Your task to perform on an android device: Go to sound settings Image 0: 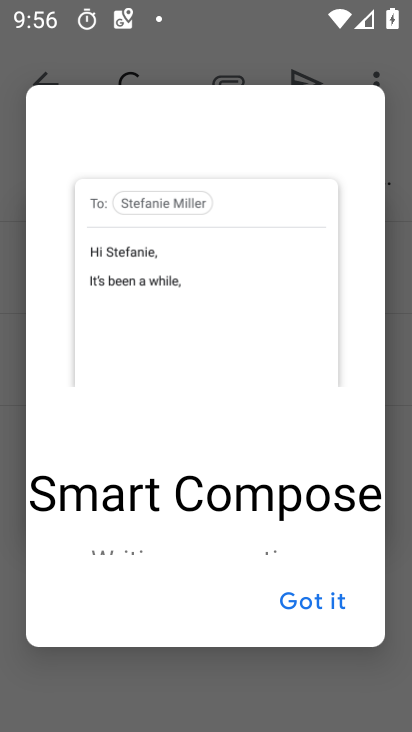
Step 0: press home button
Your task to perform on an android device: Go to sound settings Image 1: 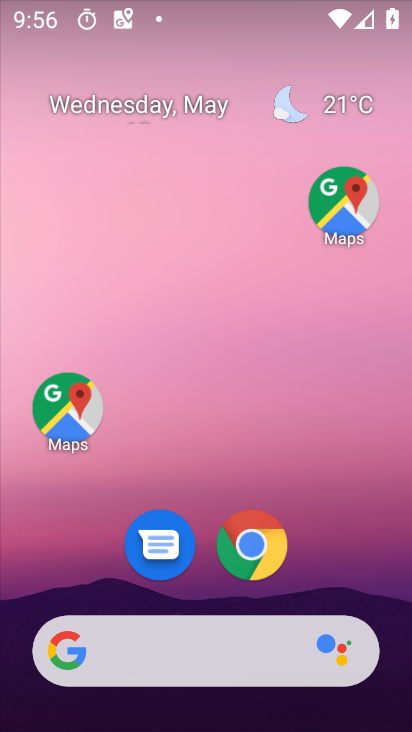
Step 1: drag from (323, 581) to (225, 31)
Your task to perform on an android device: Go to sound settings Image 2: 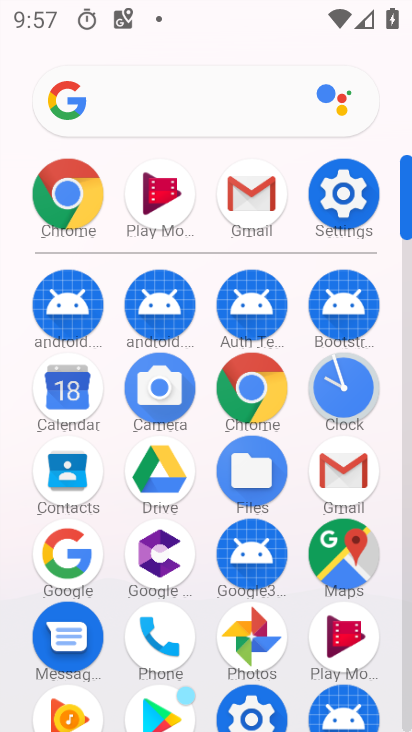
Step 2: click (347, 202)
Your task to perform on an android device: Go to sound settings Image 3: 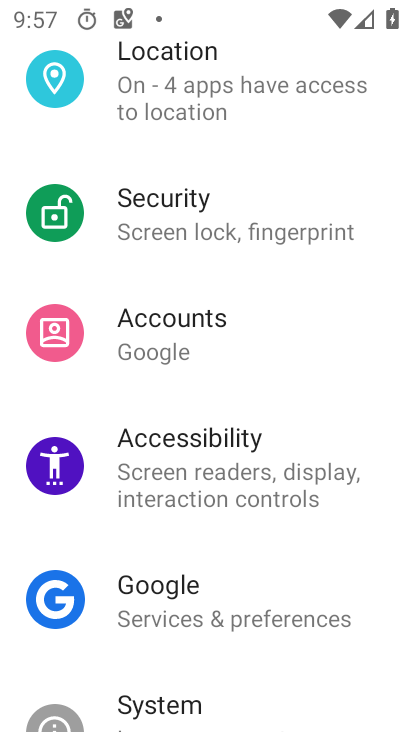
Step 3: drag from (167, 395) to (158, 536)
Your task to perform on an android device: Go to sound settings Image 4: 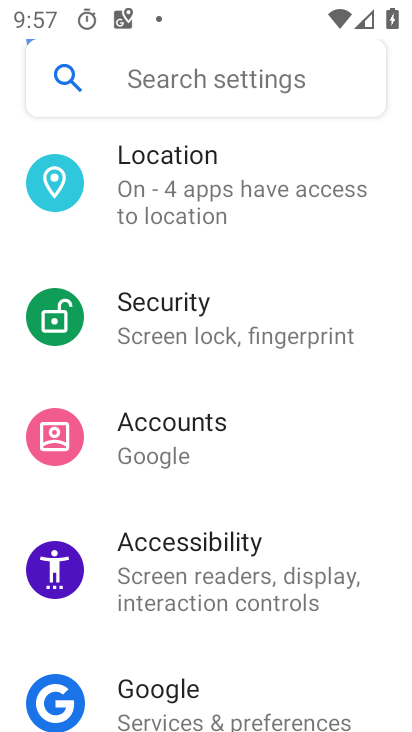
Step 4: drag from (177, 227) to (222, 362)
Your task to perform on an android device: Go to sound settings Image 5: 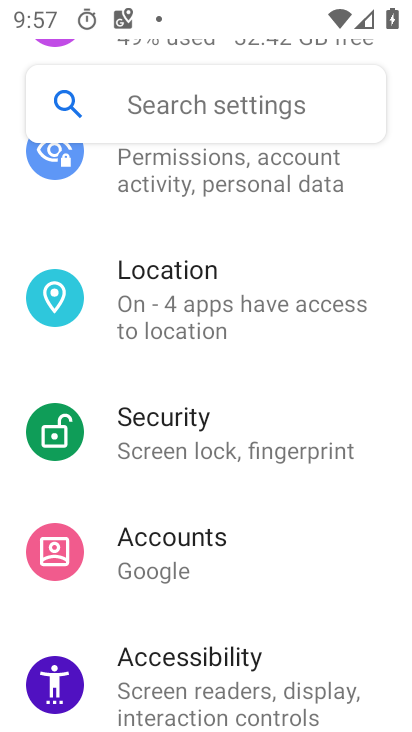
Step 5: drag from (197, 251) to (258, 408)
Your task to perform on an android device: Go to sound settings Image 6: 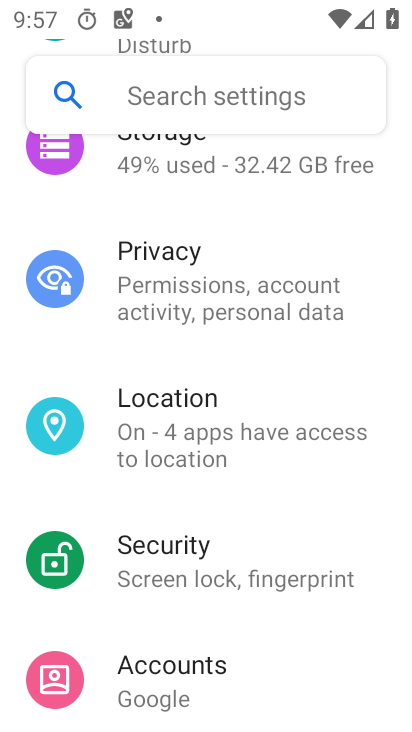
Step 6: drag from (214, 273) to (255, 421)
Your task to perform on an android device: Go to sound settings Image 7: 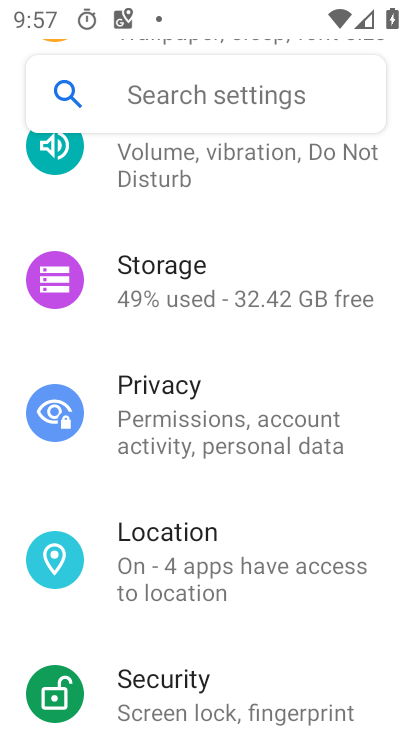
Step 7: drag from (248, 286) to (292, 440)
Your task to perform on an android device: Go to sound settings Image 8: 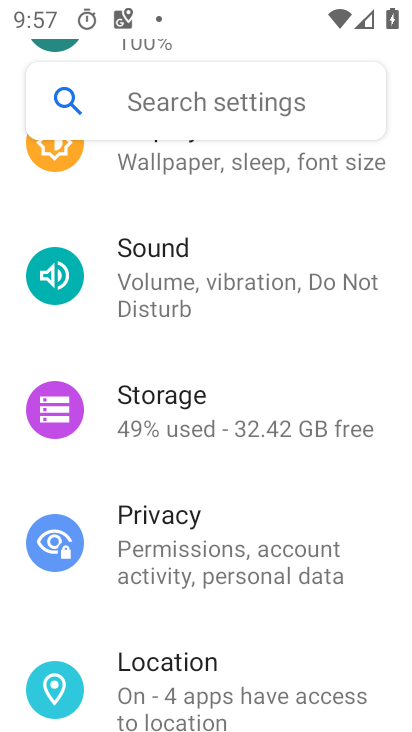
Step 8: drag from (232, 299) to (234, 428)
Your task to perform on an android device: Go to sound settings Image 9: 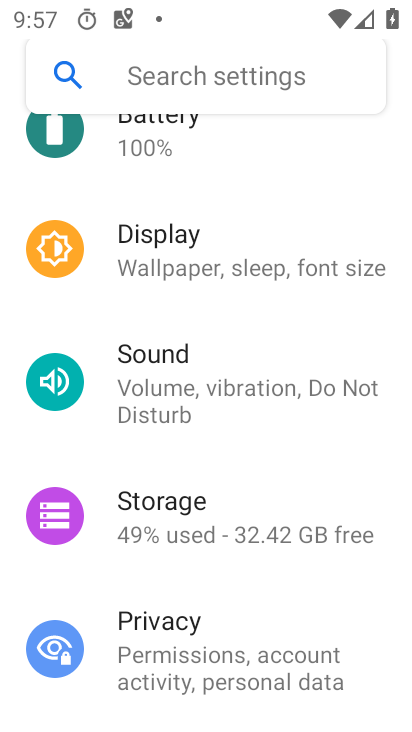
Step 9: click (191, 357)
Your task to perform on an android device: Go to sound settings Image 10: 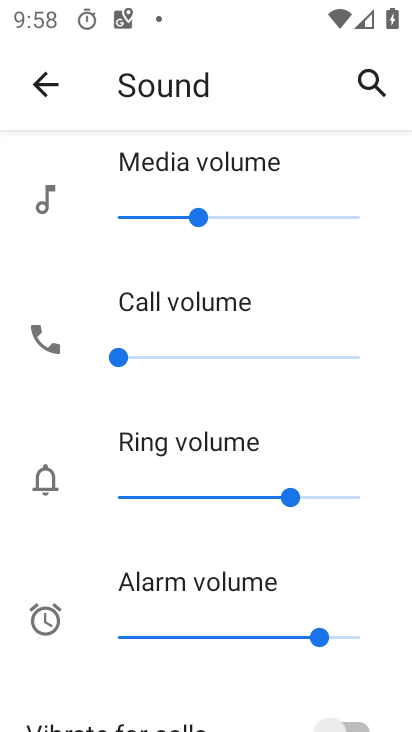
Step 10: task complete